Your task to perform on an android device: toggle show notifications on the lock screen Image 0: 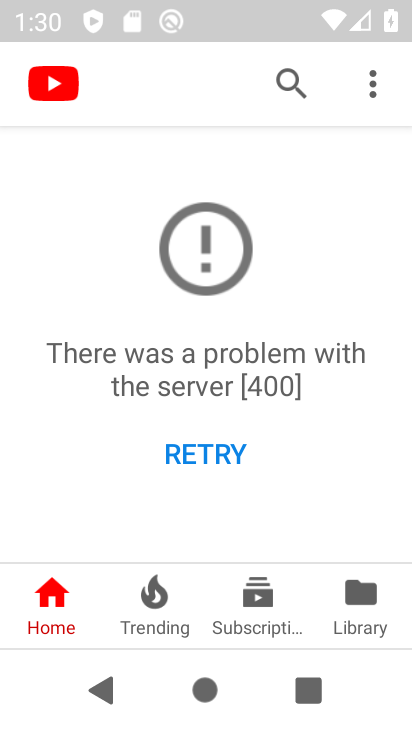
Step 0: press home button
Your task to perform on an android device: toggle show notifications on the lock screen Image 1: 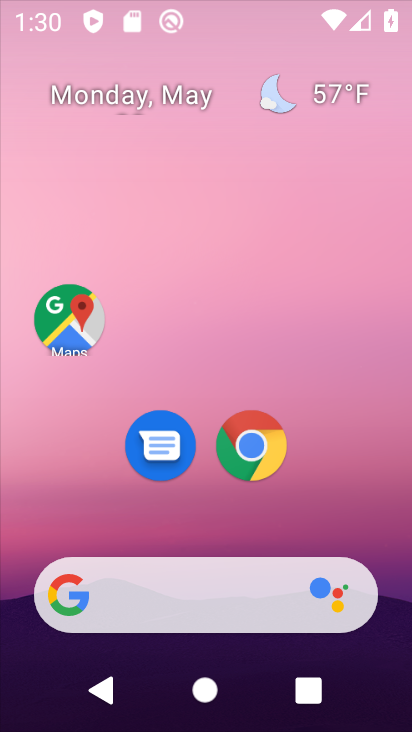
Step 1: drag from (226, 523) to (244, 46)
Your task to perform on an android device: toggle show notifications on the lock screen Image 2: 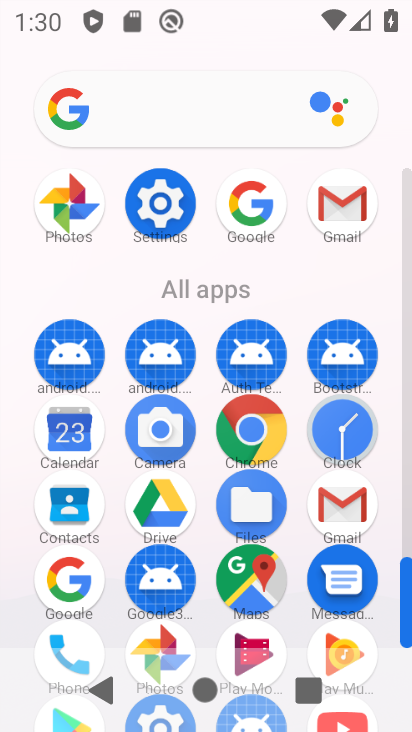
Step 2: click (159, 213)
Your task to perform on an android device: toggle show notifications on the lock screen Image 3: 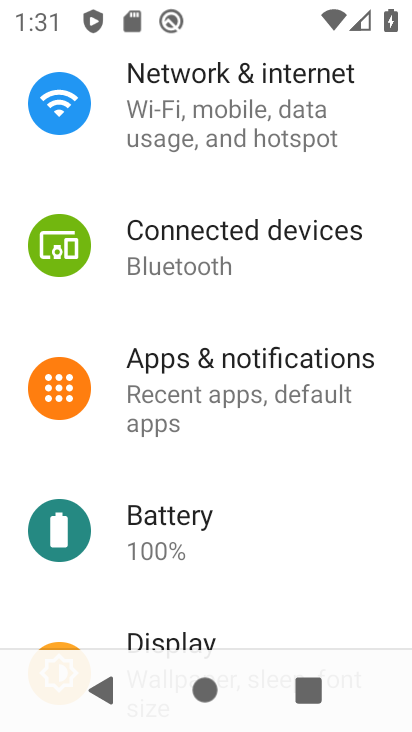
Step 3: click (192, 391)
Your task to perform on an android device: toggle show notifications on the lock screen Image 4: 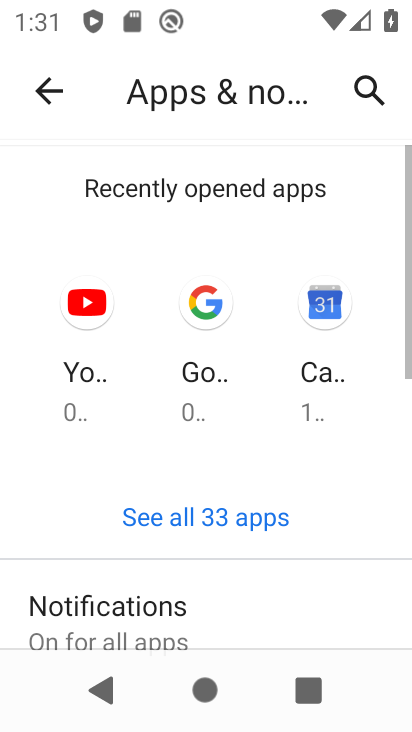
Step 4: click (160, 620)
Your task to perform on an android device: toggle show notifications on the lock screen Image 5: 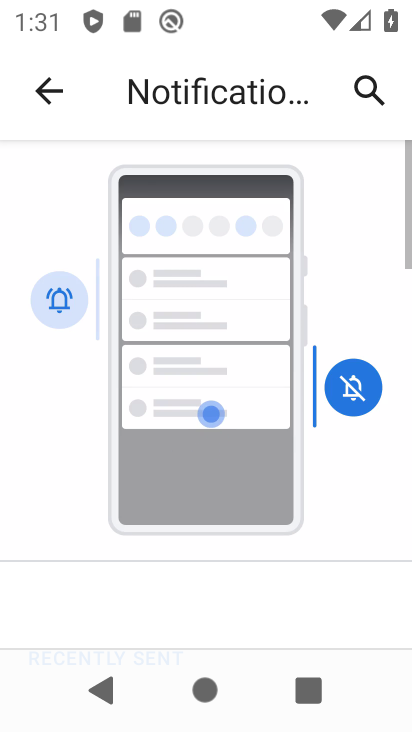
Step 5: drag from (236, 596) to (248, 177)
Your task to perform on an android device: toggle show notifications on the lock screen Image 6: 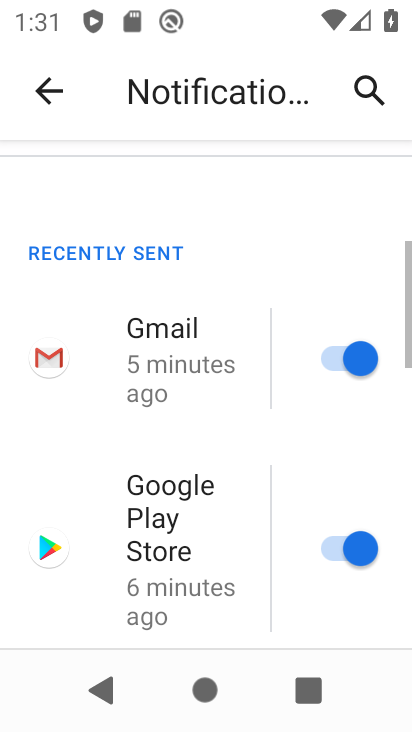
Step 6: drag from (186, 607) to (145, 36)
Your task to perform on an android device: toggle show notifications on the lock screen Image 7: 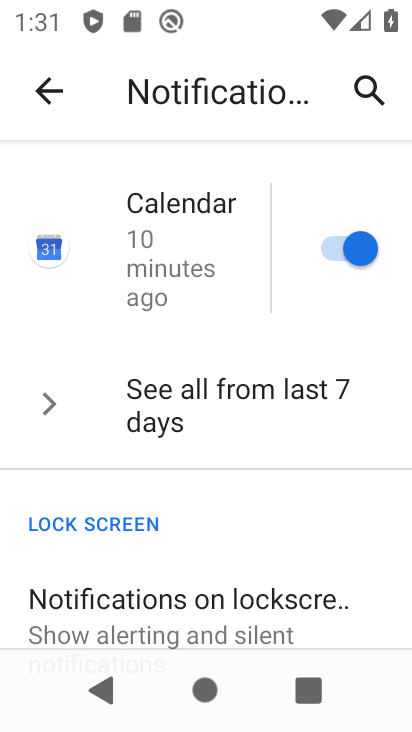
Step 7: drag from (187, 603) to (176, 389)
Your task to perform on an android device: toggle show notifications on the lock screen Image 8: 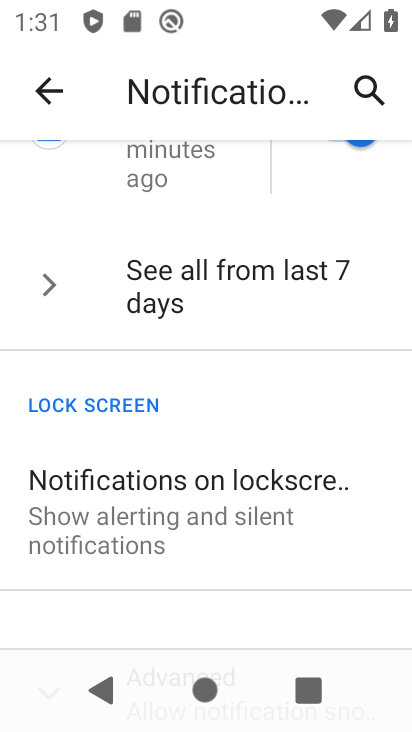
Step 8: click (177, 515)
Your task to perform on an android device: toggle show notifications on the lock screen Image 9: 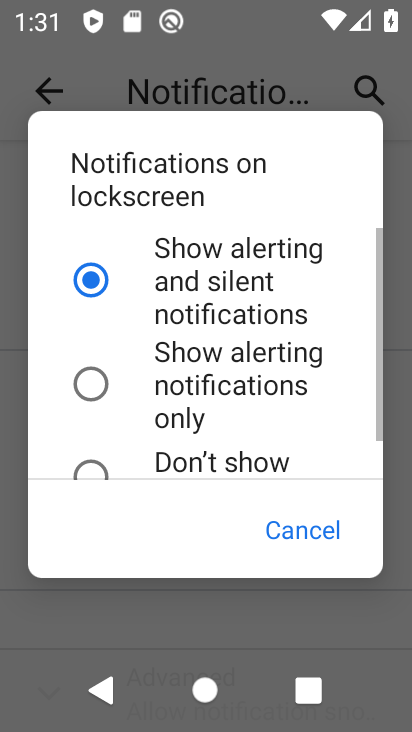
Step 9: drag from (122, 368) to (127, 298)
Your task to perform on an android device: toggle show notifications on the lock screen Image 10: 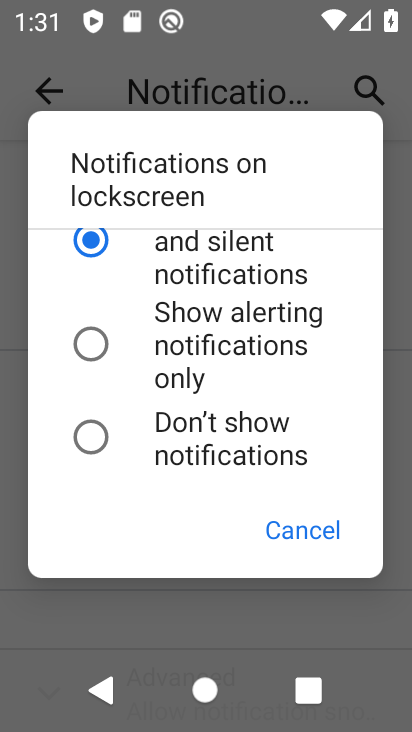
Step 10: click (91, 435)
Your task to perform on an android device: toggle show notifications on the lock screen Image 11: 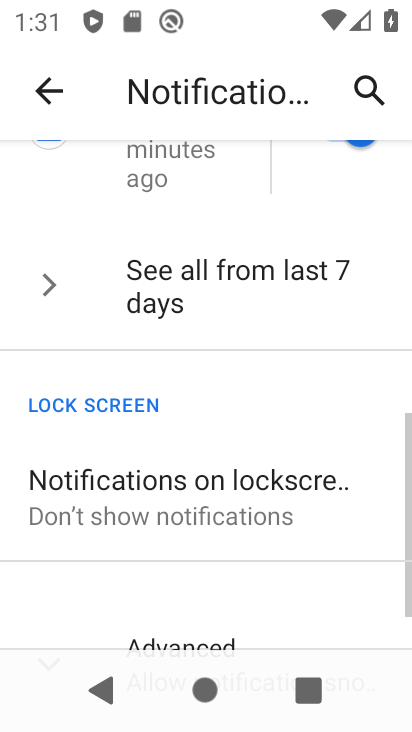
Step 11: task complete